Your task to perform on an android device: find snoozed emails in the gmail app Image 0: 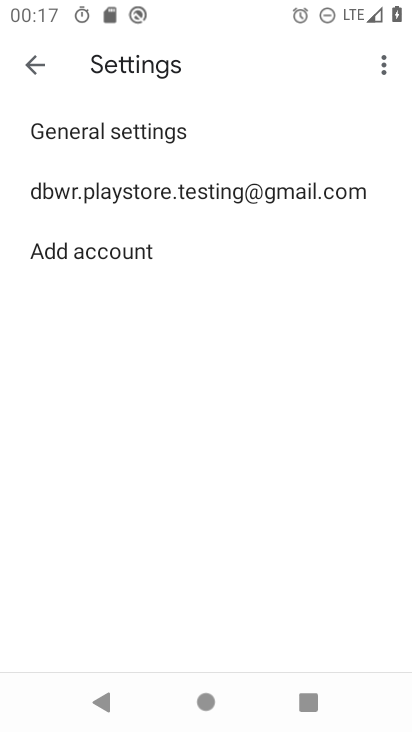
Step 0: press home button
Your task to perform on an android device: find snoozed emails in the gmail app Image 1: 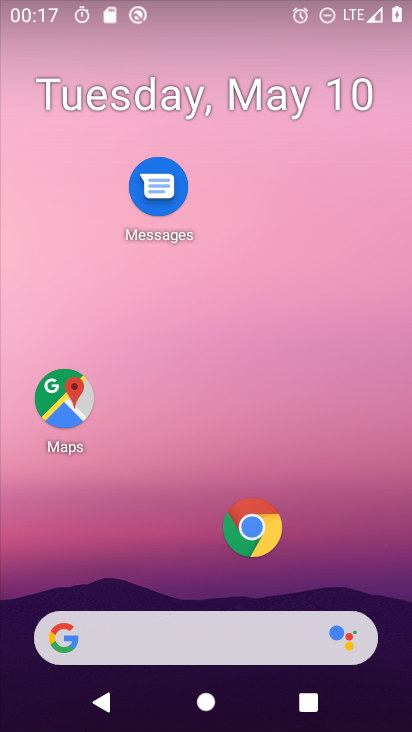
Step 1: drag from (190, 575) to (183, 38)
Your task to perform on an android device: find snoozed emails in the gmail app Image 2: 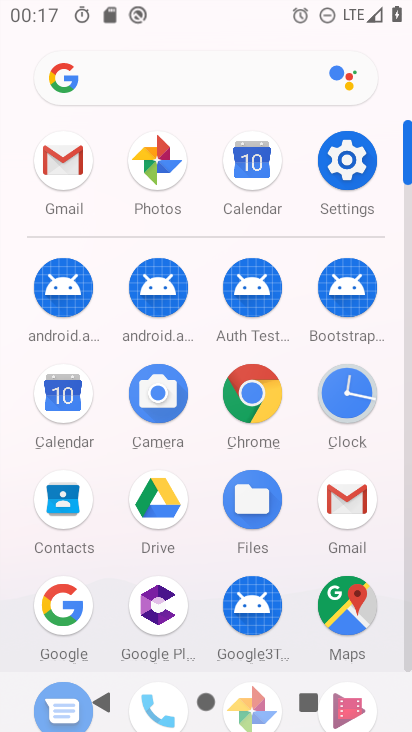
Step 2: click (60, 159)
Your task to perform on an android device: find snoozed emails in the gmail app Image 3: 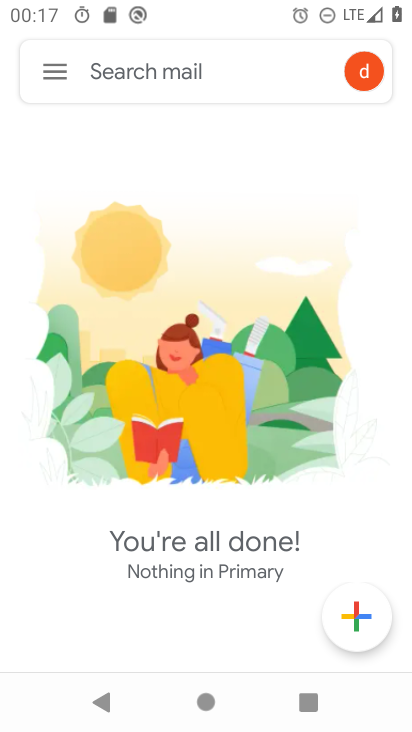
Step 3: click (51, 70)
Your task to perform on an android device: find snoozed emails in the gmail app Image 4: 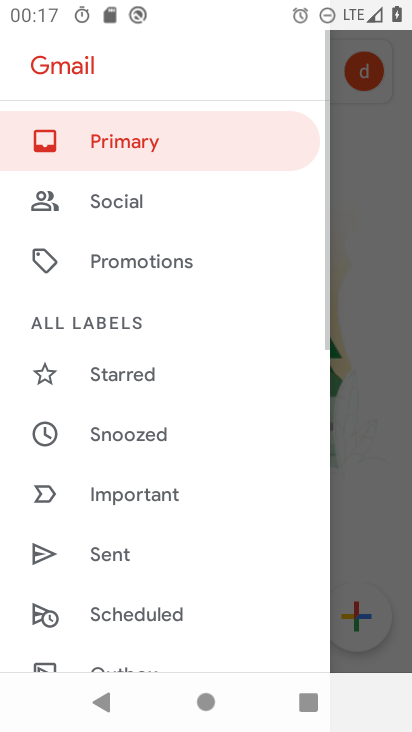
Step 4: drag from (161, 604) to (179, 294)
Your task to perform on an android device: find snoozed emails in the gmail app Image 5: 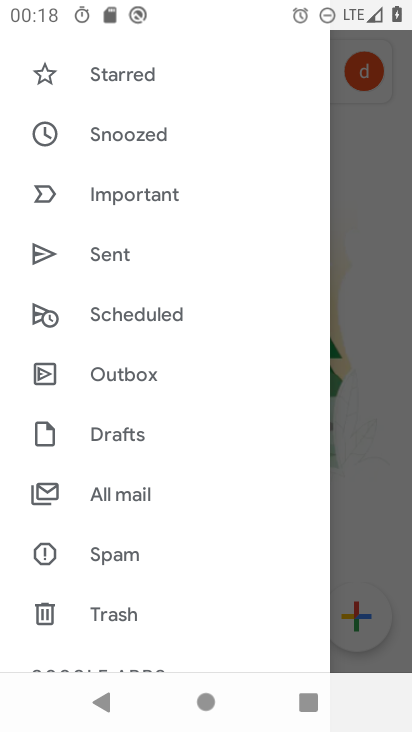
Step 5: click (134, 143)
Your task to perform on an android device: find snoozed emails in the gmail app Image 6: 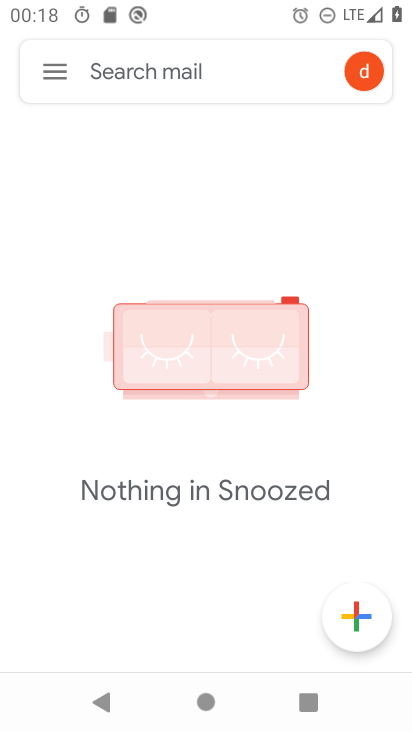
Step 6: task complete